Your task to perform on an android device: star an email in the gmail app Image 0: 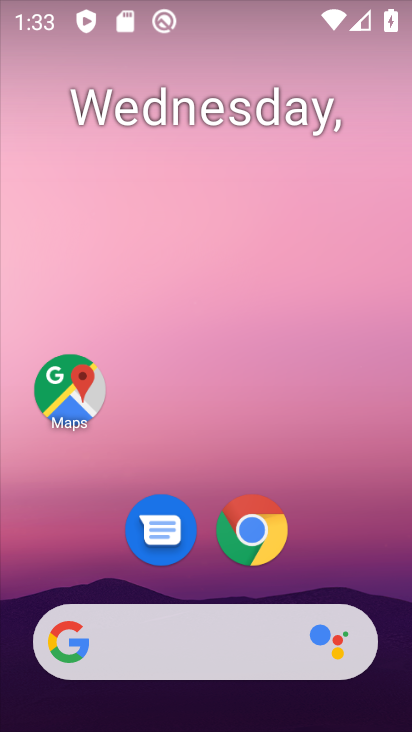
Step 0: drag from (182, 516) to (298, 4)
Your task to perform on an android device: star an email in the gmail app Image 1: 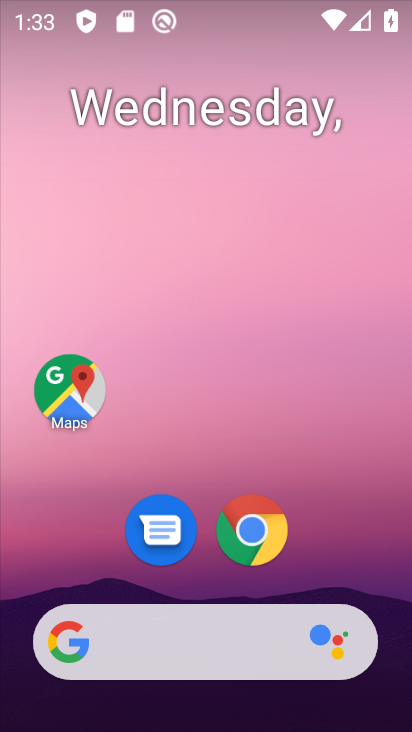
Step 1: drag from (317, 549) to (376, 18)
Your task to perform on an android device: star an email in the gmail app Image 2: 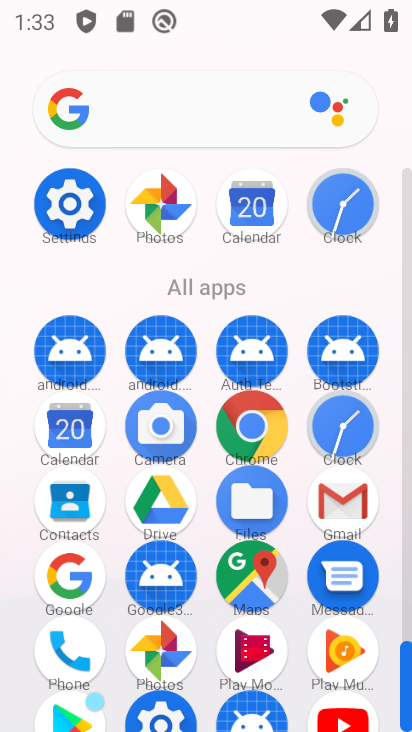
Step 2: click (353, 507)
Your task to perform on an android device: star an email in the gmail app Image 3: 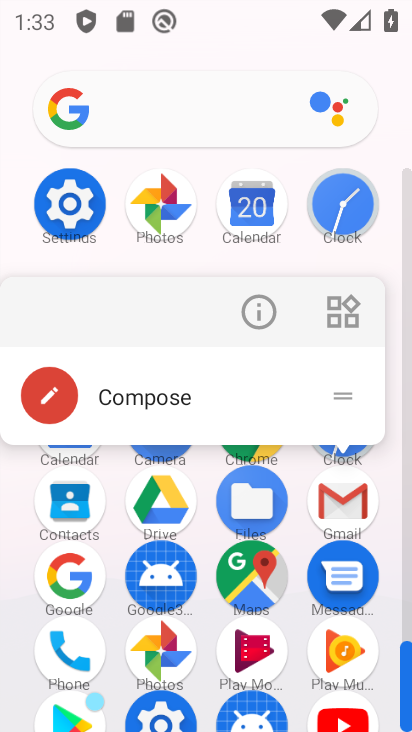
Step 3: click (344, 498)
Your task to perform on an android device: star an email in the gmail app Image 4: 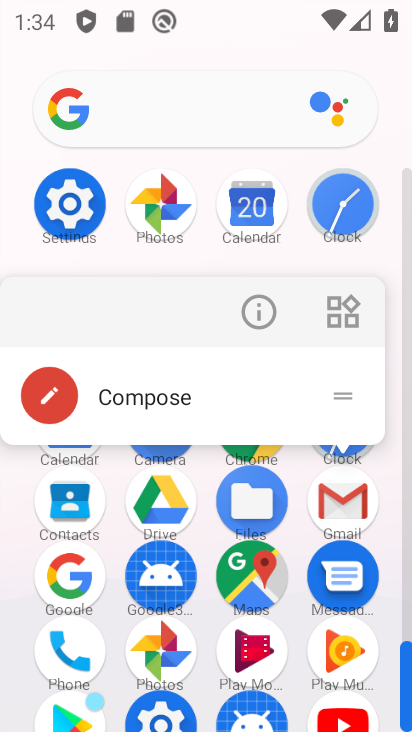
Step 4: click (346, 495)
Your task to perform on an android device: star an email in the gmail app Image 5: 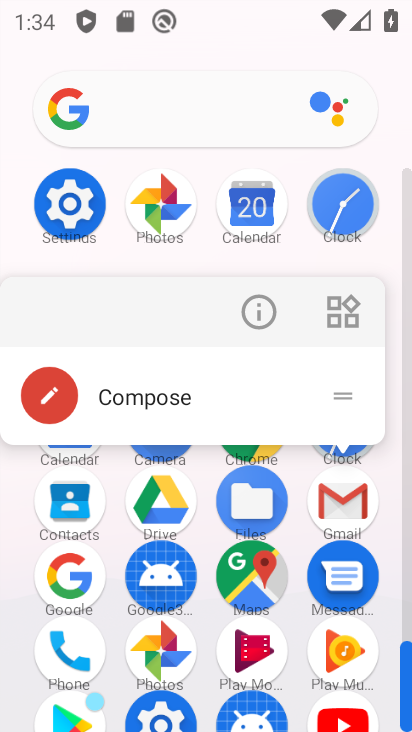
Step 5: click (343, 497)
Your task to perform on an android device: star an email in the gmail app Image 6: 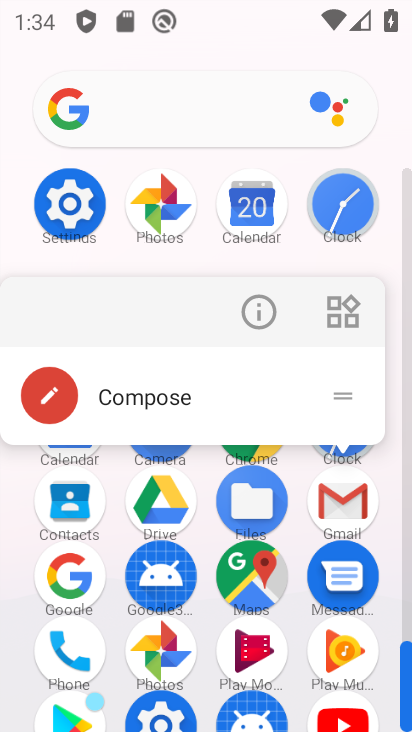
Step 6: click (340, 503)
Your task to perform on an android device: star an email in the gmail app Image 7: 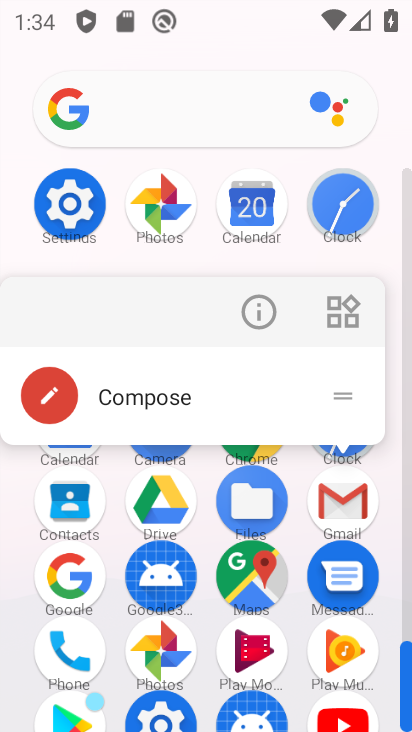
Step 7: click (355, 509)
Your task to perform on an android device: star an email in the gmail app Image 8: 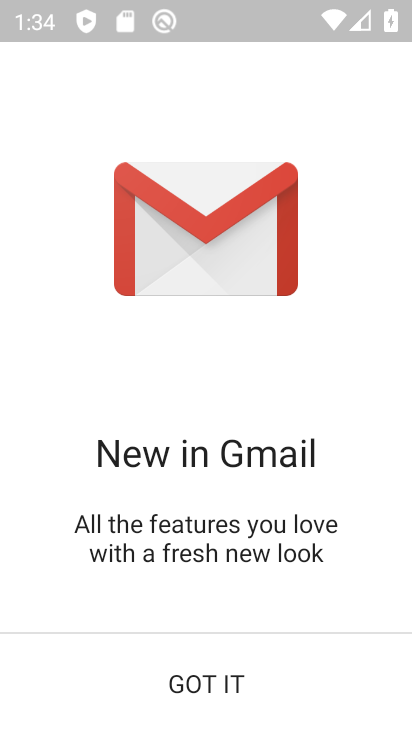
Step 8: click (256, 683)
Your task to perform on an android device: star an email in the gmail app Image 9: 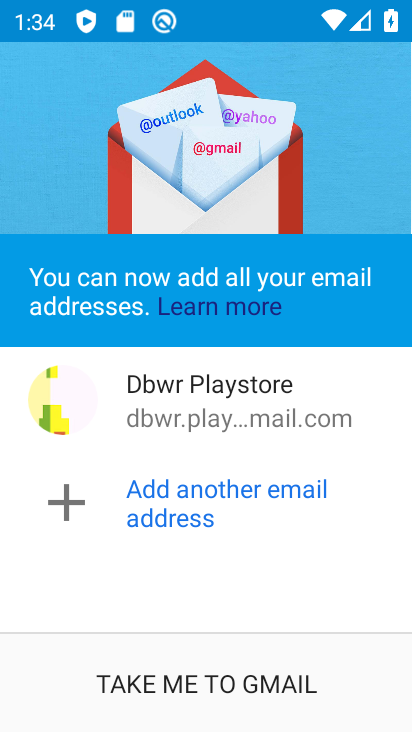
Step 9: click (272, 662)
Your task to perform on an android device: star an email in the gmail app Image 10: 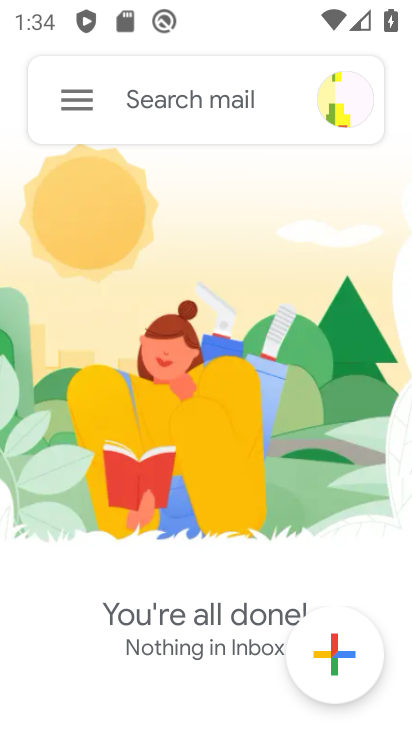
Step 10: click (60, 90)
Your task to perform on an android device: star an email in the gmail app Image 11: 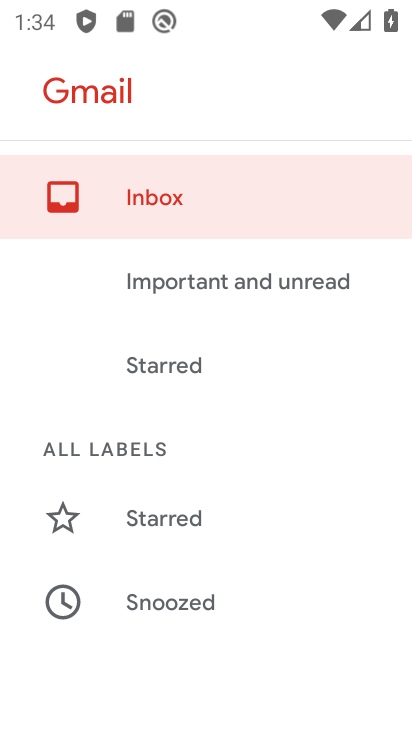
Step 11: drag from (171, 628) to (361, 160)
Your task to perform on an android device: star an email in the gmail app Image 12: 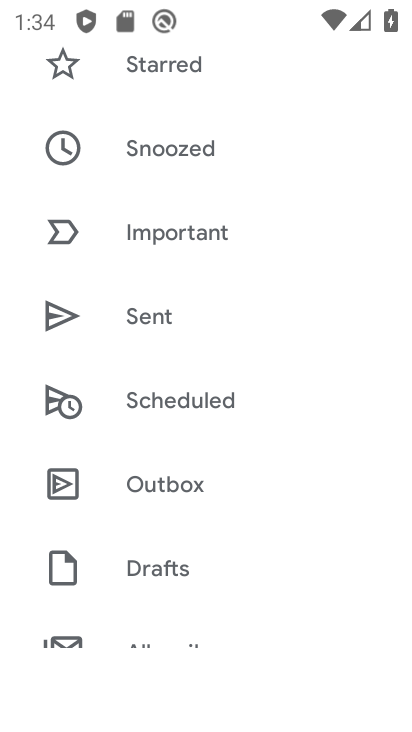
Step 12: drag from (219, 623) to (309, 337)
Your task to perform on an android device: star an email in the gmail app Image 13: 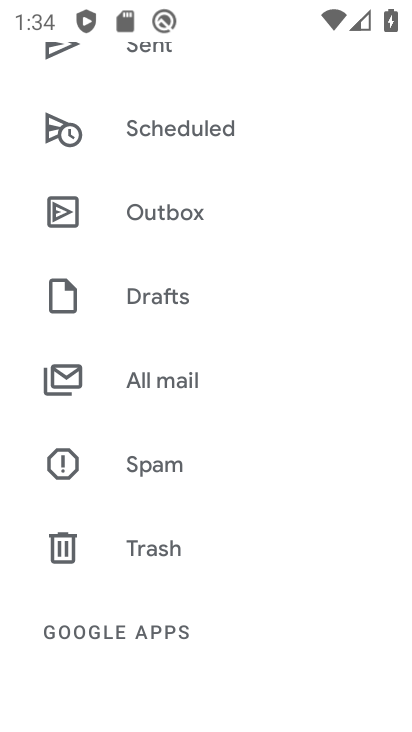
Step 13: click (217, 389)
Your task to perform on an android device: star an email in the gmail app Image 14: 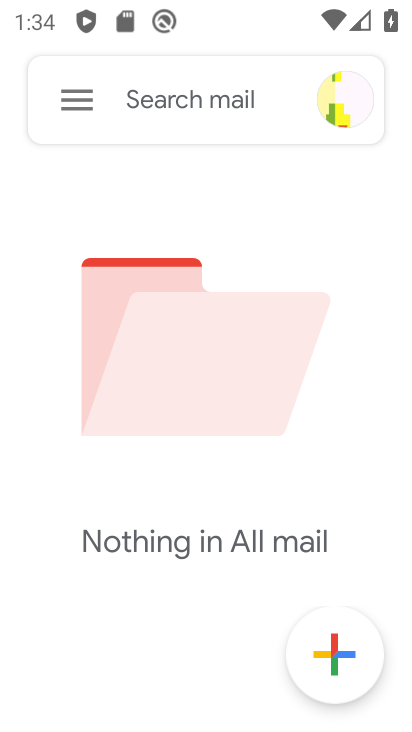
Step 14: task complete